Your task to perform on an android device: toggle javascript in the chrome app Image 0: 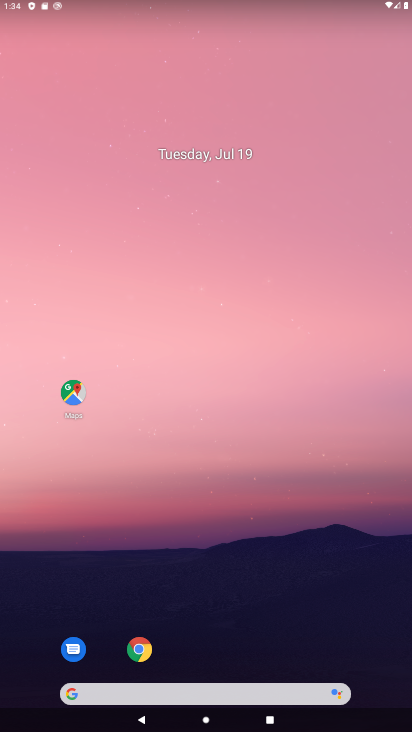
Step 0: drag from (255, 344) to (248, 118)
Your task to perform on an android device: toggle javascript in the chrome app Image 1: 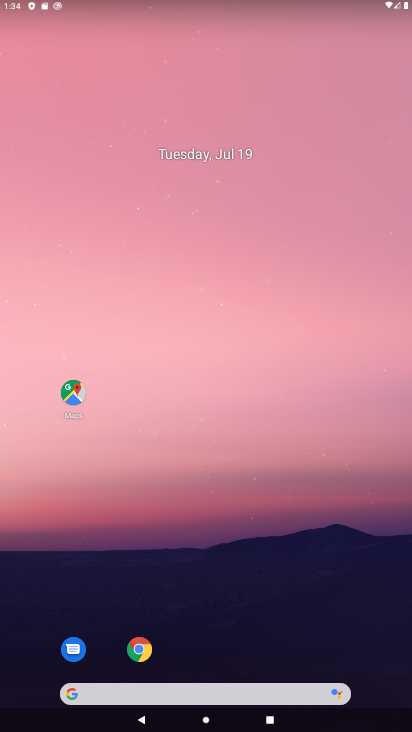
Step 1: drag from (370, 642) to (255, 9)
Your task to perform on an android device: toggle javascript in the chrome app Image 2: 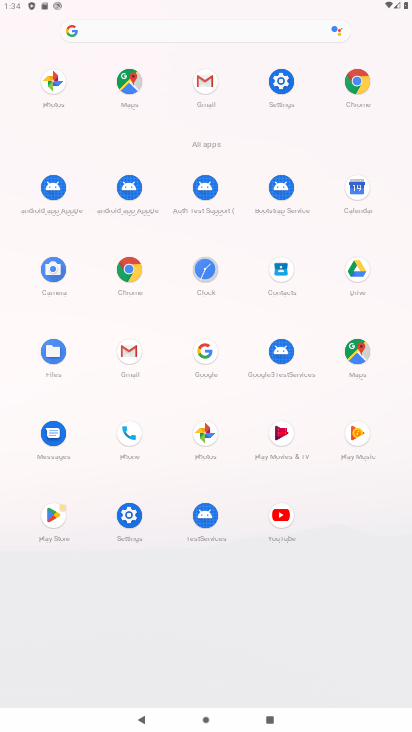
Step 2: click (358, 80)
Your task to perform on an android device: toggle javascript in the chrome app Image 3: 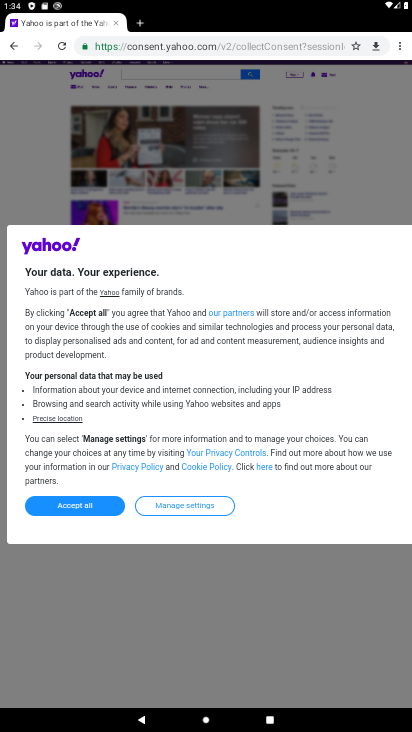
Step 3: drag from (402, 43) to (309, 307)
Your task to perform on an android device: toggle javascript in the chrome app Image 4: 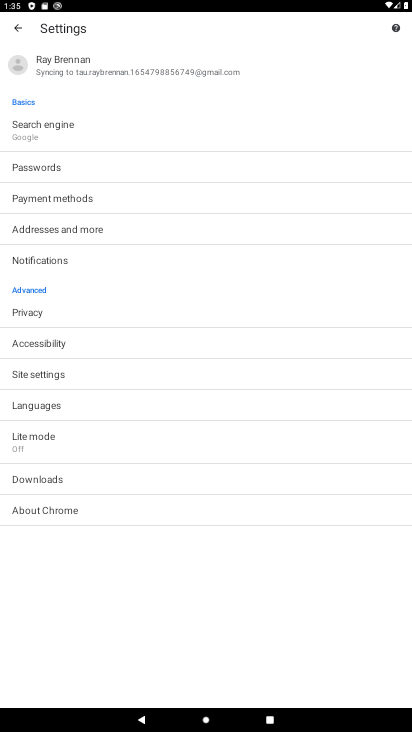
Step 4: click (55, 367)
Your task to perform on an android device: toggle javascript in the chrome app Image 5: 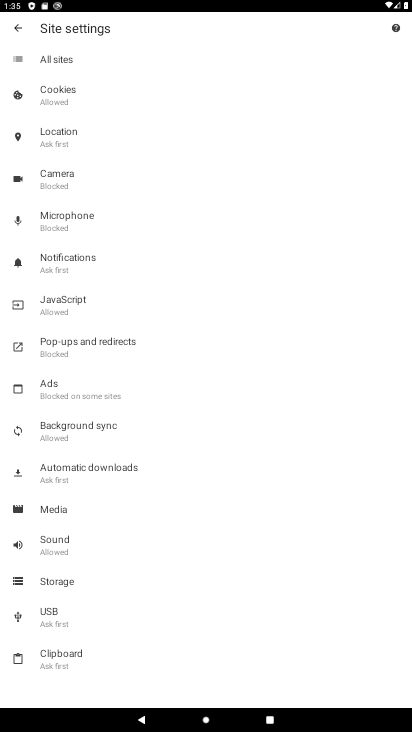
Step 5: click (54, 305)
Your task to perform on an android device: toggle javascript in the chrome app Image 6: 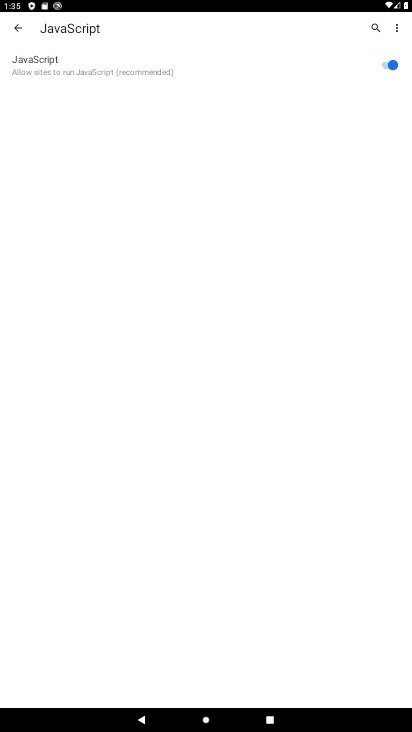
Step 6: click (390, 65)
Your task to perform on an android device: toggle javascript in the chrome app Image 7: 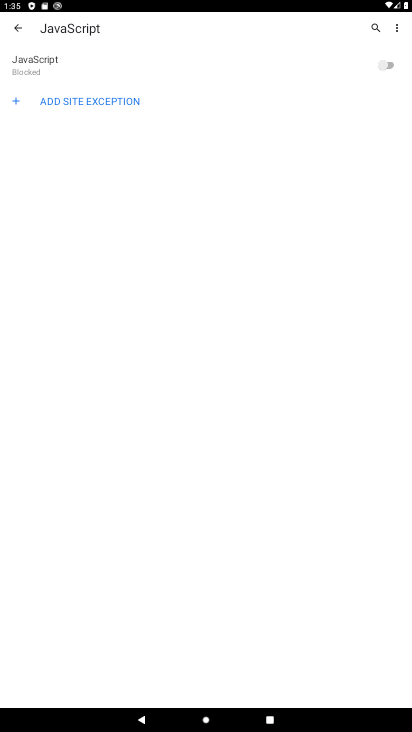
Step 7: task complete